Your task to perform on an android device: toggle location history Image 0: 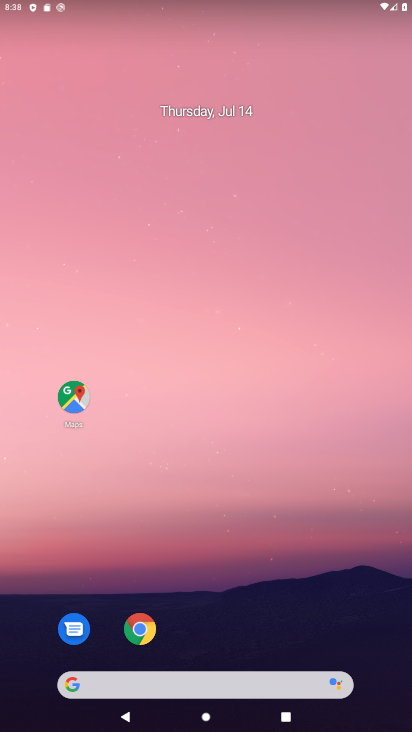
Step 0: press home button
Your task to perform on an android device: toggle location history Image 1: 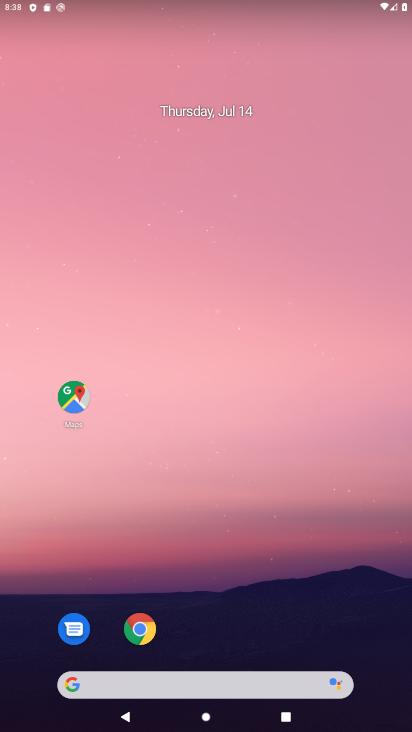
Step 1: drag from (262, 620) to (249, 180)
Your task to perform on an android device: toggle location history Image 2: 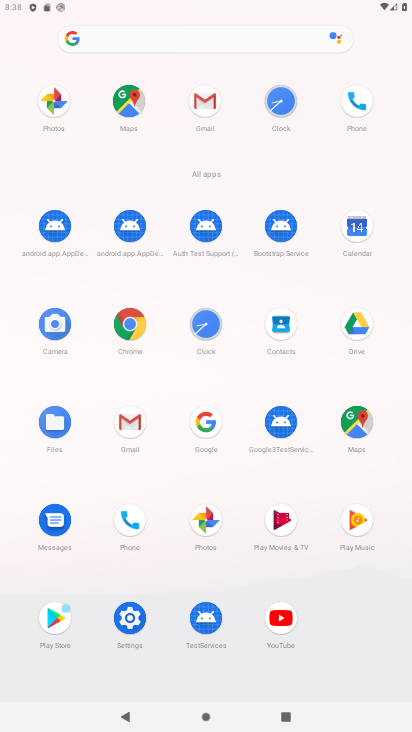
Step 2: click (126, 624)
Your task to perform on an android device: toggle location history Image 3: 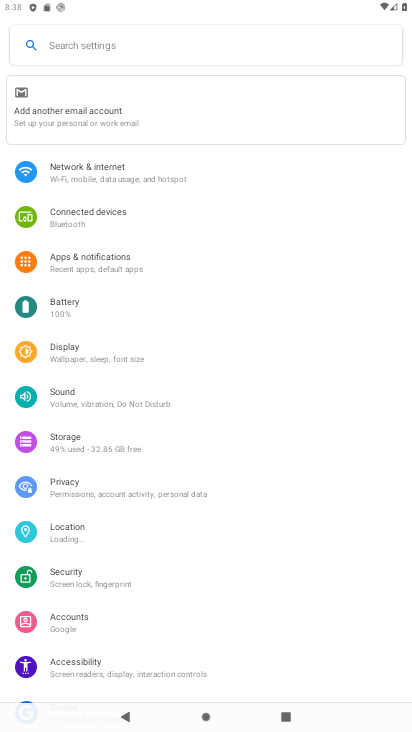
Step 3: click (76, 519)
Your task to perform on an android device: toggle location history Image 4: 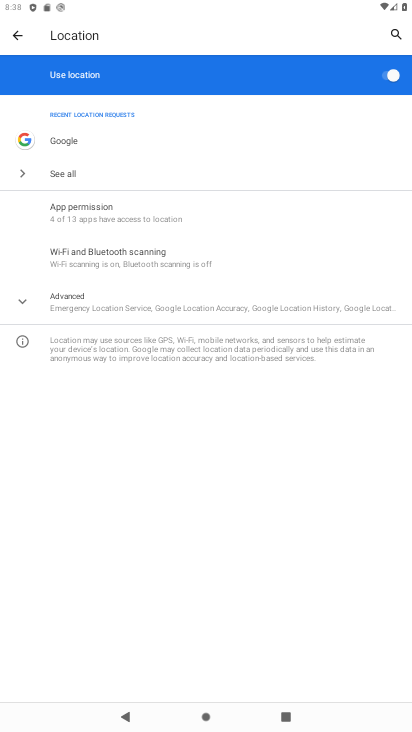
Step 4: click (195, 299)
Your task to perform on an android device: toggle location history Image 5: 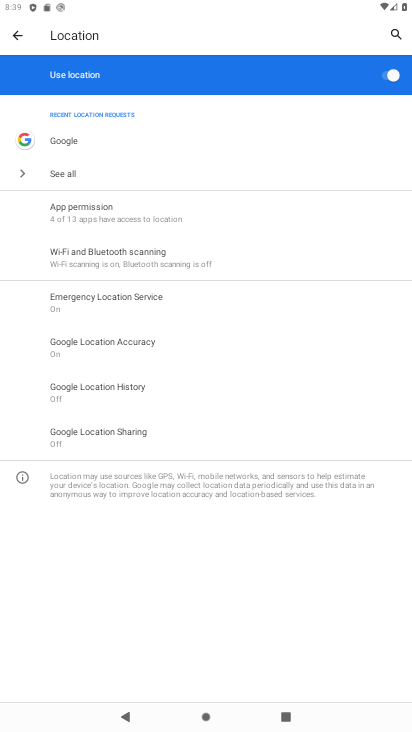
Step 5: click (116, 384)
Your task to perform on an android device: toggle location history Image 6: 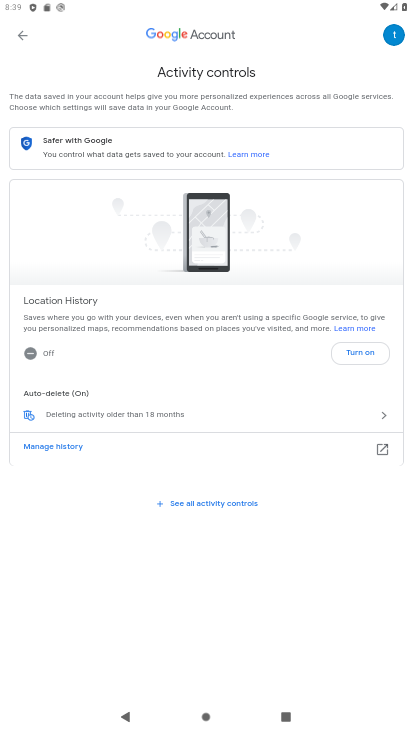
Step 6: click (358, 347)
Your task to perform on an android device: toggle location history Image 7: 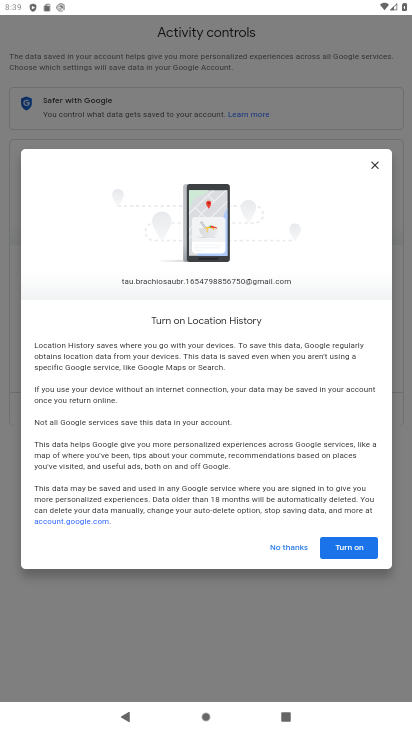
Step 7: click (347, 546)
Your task to perform on an android device: toggle location history Image 8: 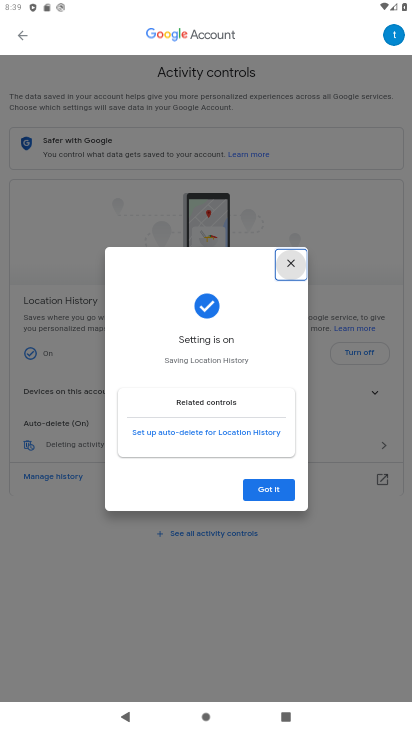
Step 8: click (265, 483)
Your task to perform on an android device: toggle location history Image 9: 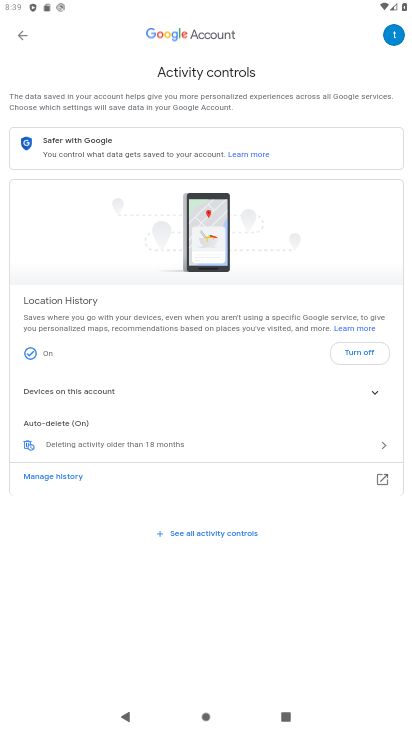
Step 9: task complete